Your task to perform on an android device: make emails show in primary in the gmail app Image 0: 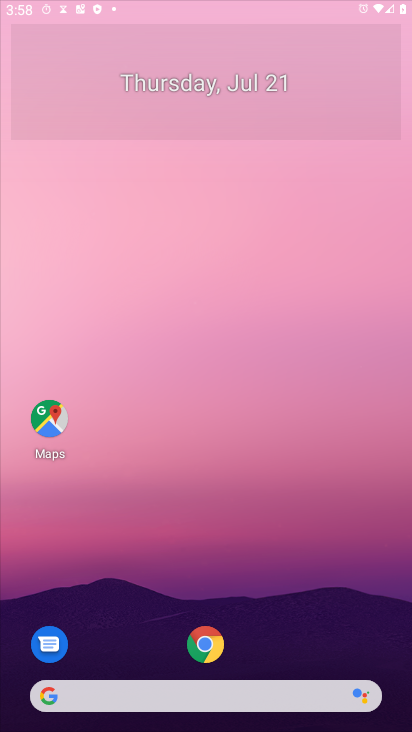
Step 0: press home button
Your task to perform on an android device: make emails show in primary in the gmail app Image 1: 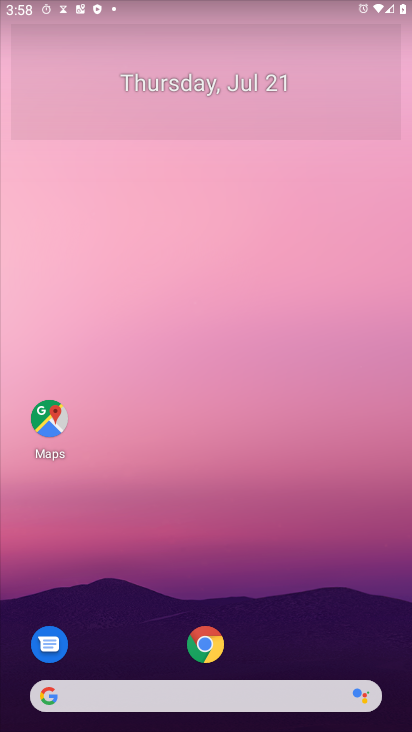
Step 1: drag from (337, 629) to (321, 76)
Your task to perform on an android device: make emails show in primary in the gmail app Image 2: 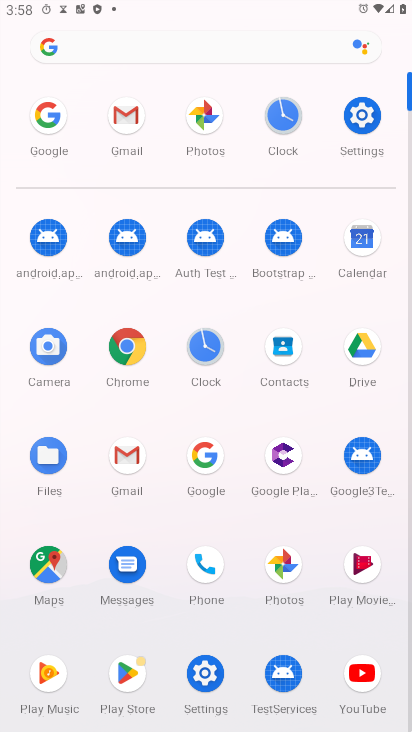
Step 2: click (127, 112)
Your task to perform on an android device: make emails show in primary in the gmail app Image 3: 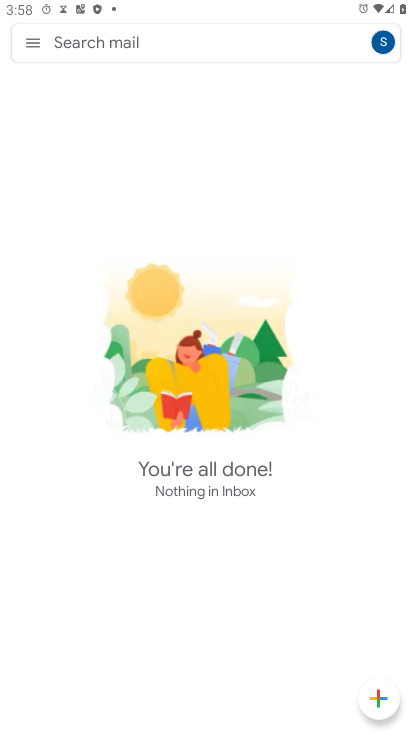
Step 3: click (31, 42)
Your task to perform on an android device: make emails show in primary in the gmail app Image 4: 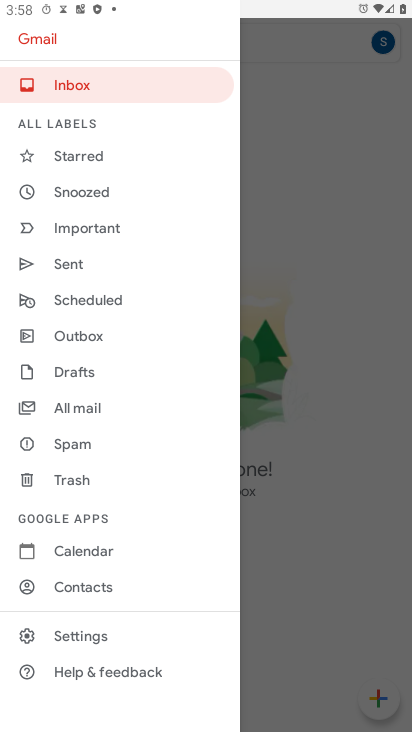
Step 4: click (94, 633)
Your task to perform on an android device: make emails show in primary in the gmail app Image 5: 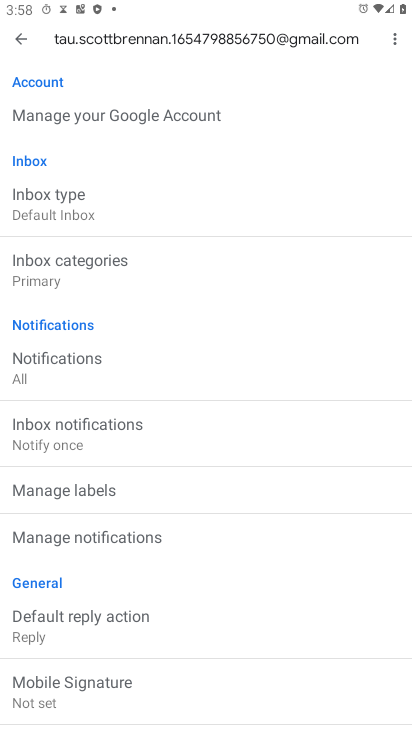
Step 5: click (46, 206)
Your task to perform on an android device: make emails show in primary in the gmail app Image 6: 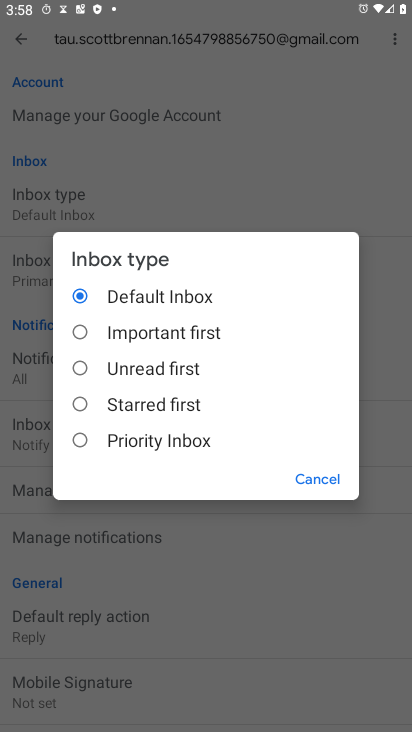
Step 6: click (306, 481)
Your task to perform on an android device: make emails show in primary in the gmail app Image 7: 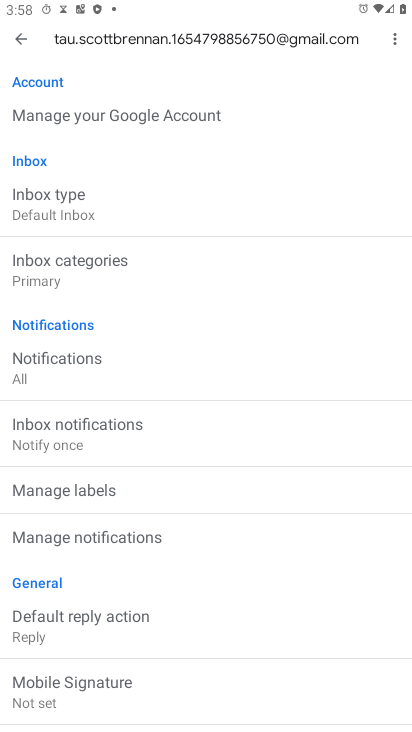
Step 7: click (63, 272)
Your task to perform on an android device: make emails show in primary in the gmail app Image 8: 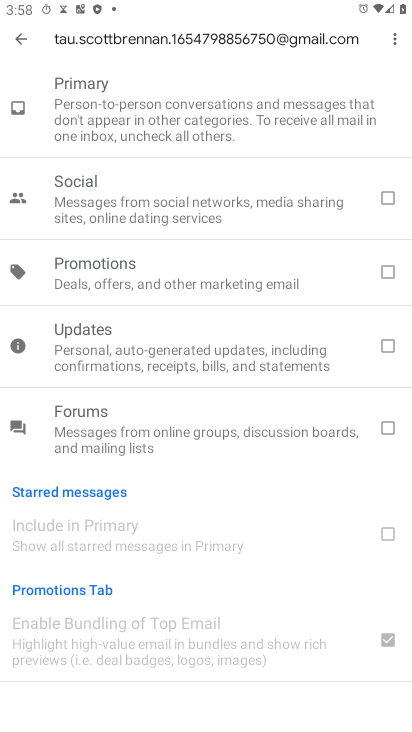
Step 8: task complete